Your task to perform on an android device: change the clock style Image 0: 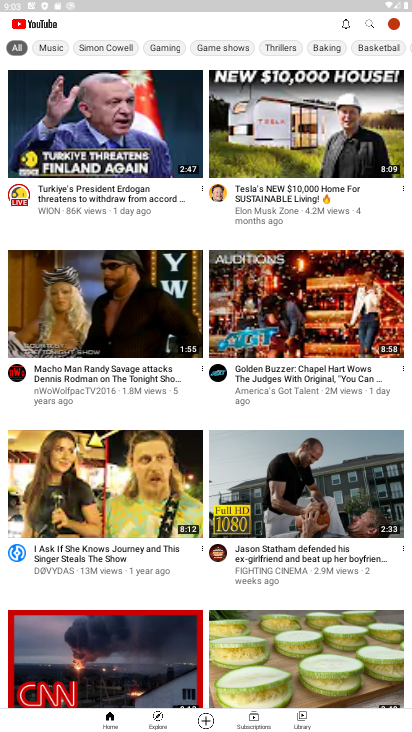
Step 0: press home button
Your task to perform on an android device: change the clock style Image 1: 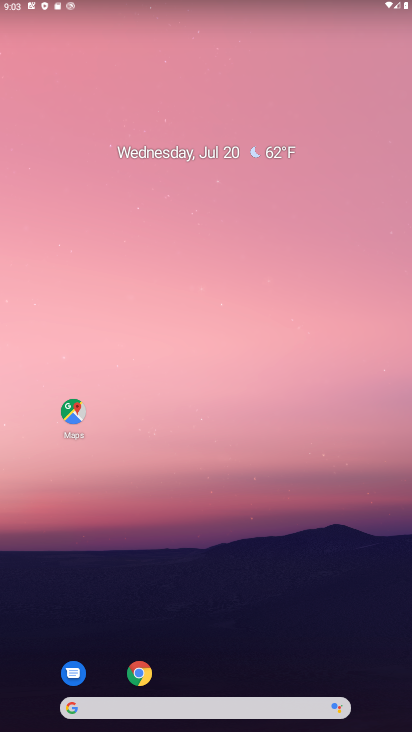
Step 1: drag from (367, 659) to (309, 100)
Your task to perform on an android device: change the clock style Image 2: 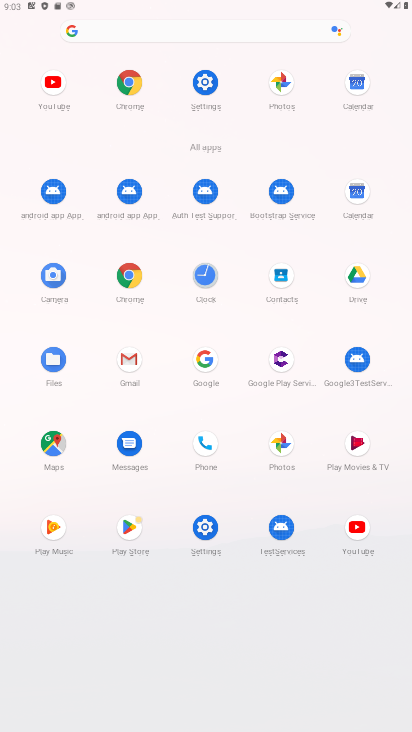
Step 2: click (205, 269)
Your task to perform on an android device: change the clock style Image 3: 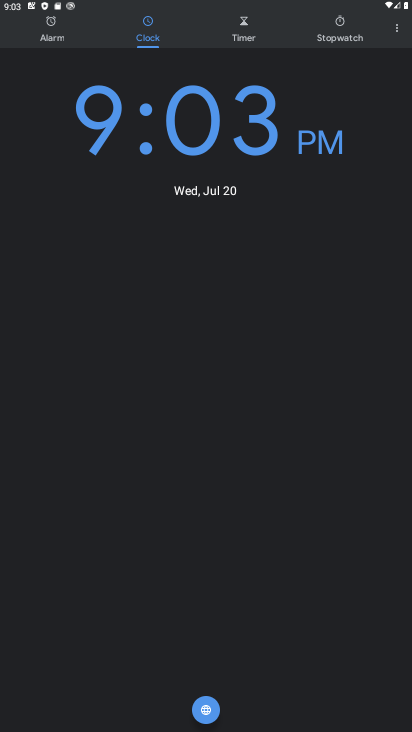
Step 3: click (394, 30)
Your task to perform on an android device: change the clock style Image 4: 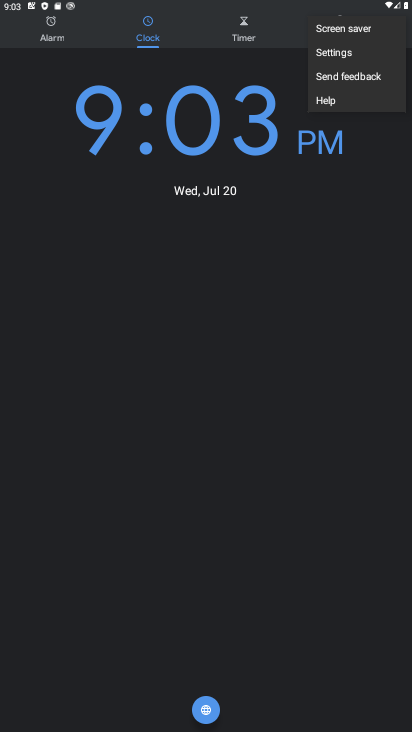
Step 4: click (331, 57)
Your task to perform on an android device: change the clock style Image 5: 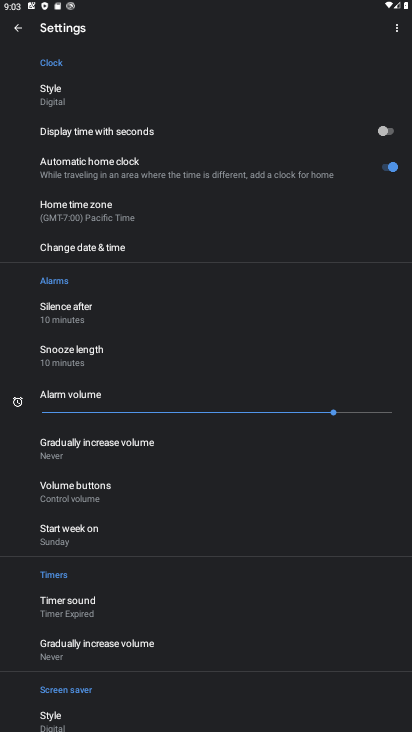
Step 5: click (59, 95)
Your task to perform on an android device: change the clock style Image 6: 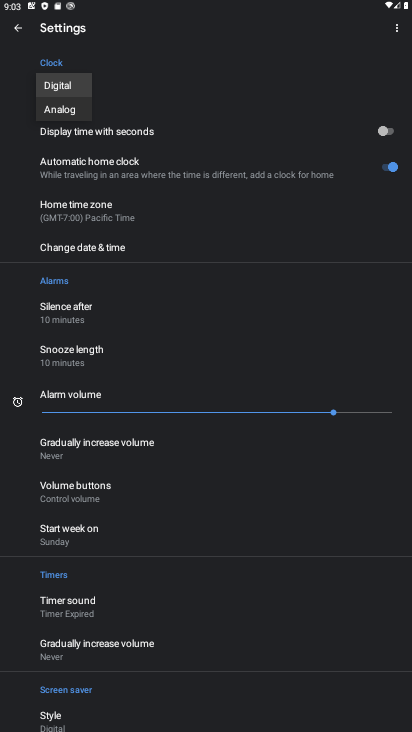
Step 6: click (57, 109)
Your task to perform on an android device: change the clock style Image 7: 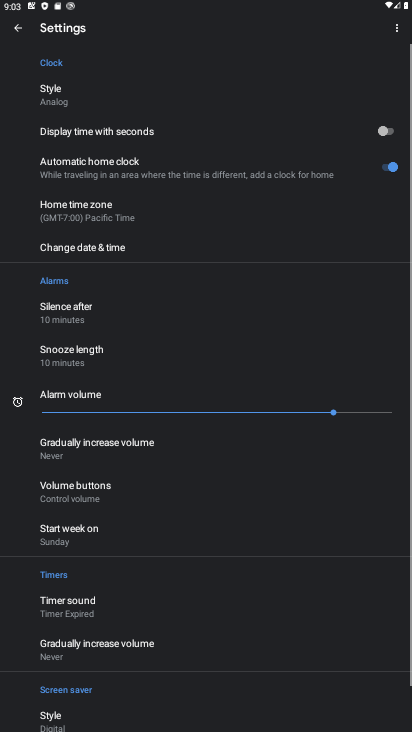
Step 7: task complete